Your task to perform on an android device: show emergency info Image 0: 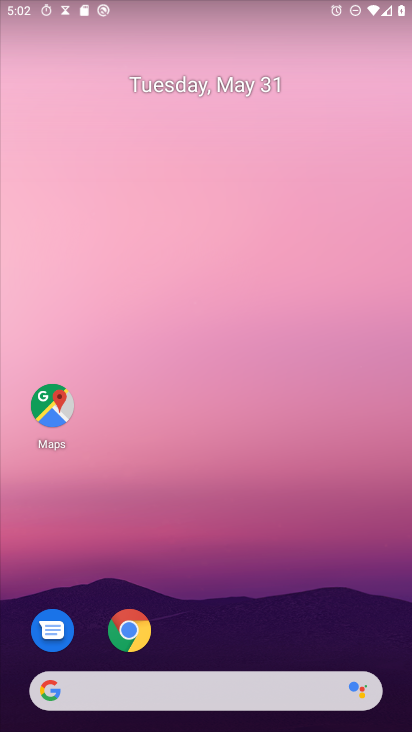
Step 0: drag from (133, 683) to (140, 27)
Your task to perform on an android device: show emergency info Image 1: 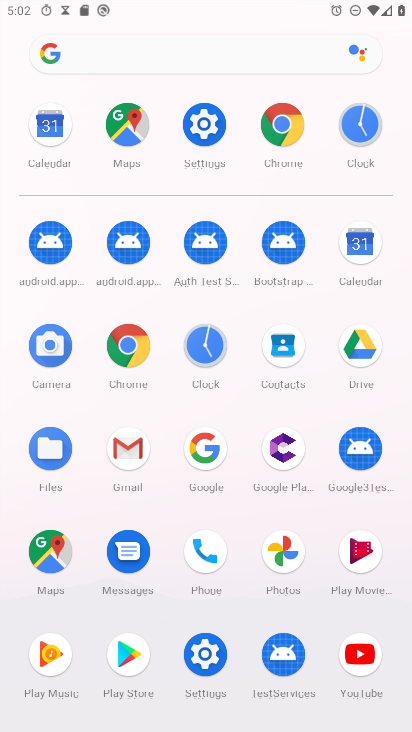
Step 1: click (202, 141)
Your task to perform on an android device: show emergency info Image 2: 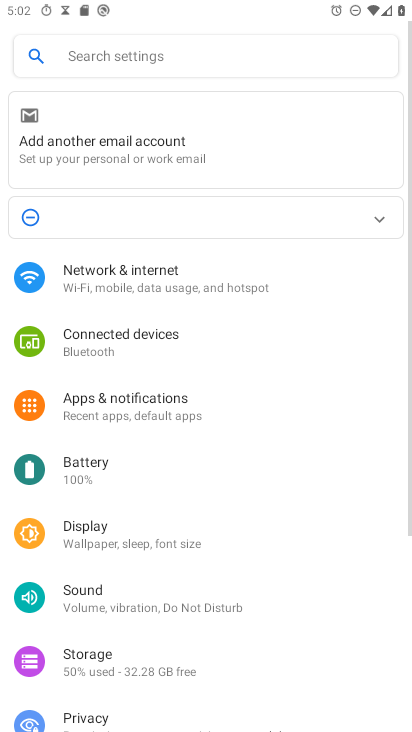
Step 2: drag from (273, 615) to (289, 51)
Your task to perform on an android device: show emergency info Image 3: 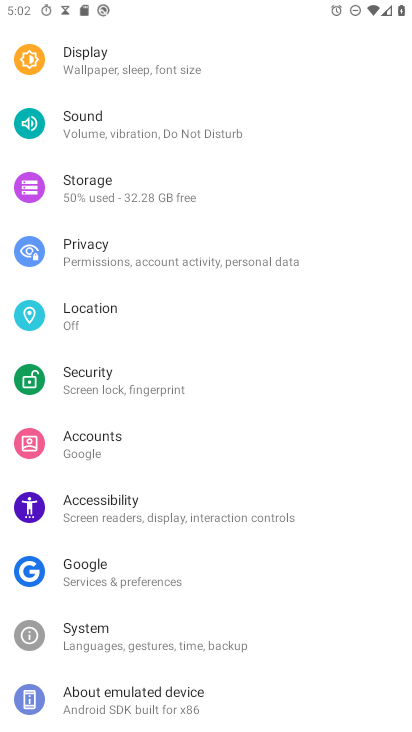
Step 3: drag from (294, 674) to (279, 145)
Your task to perform on an android device: show emergency info Image 4: 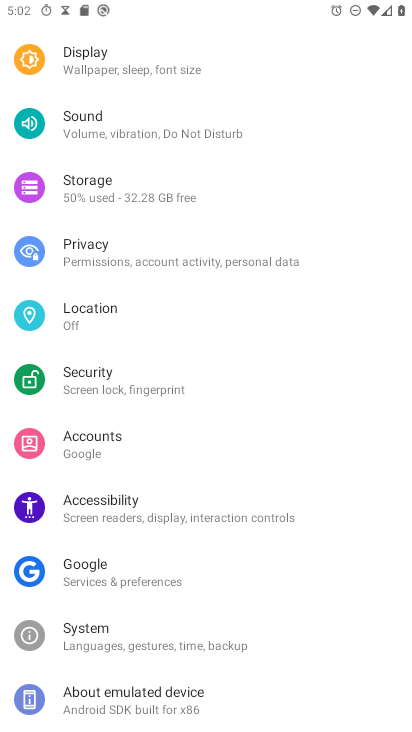
Step 4: click (248, 717)
Your task to perform on an android device: show emergency info Image 5: 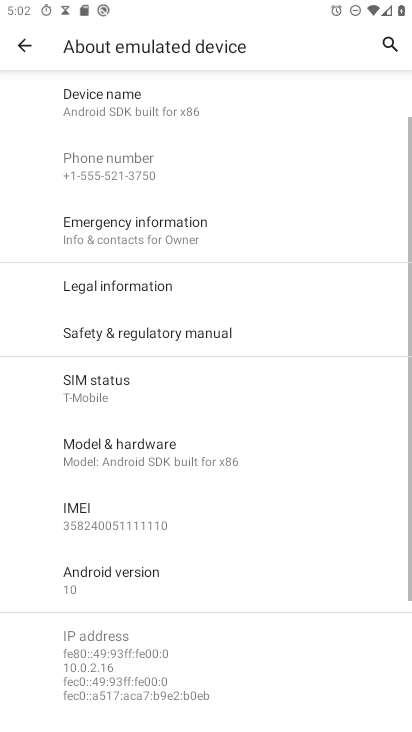
Step 5: drag from (254, 693) to (238, 417)
Your task to perform on an android device: show emergency info Image 6: 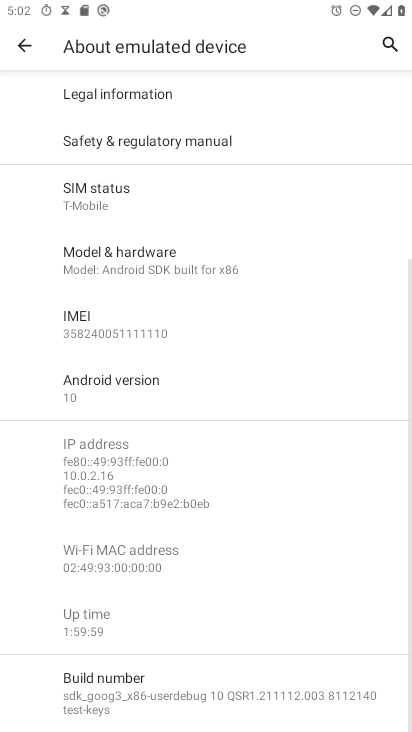
Step 6: drag from (199, 275) to (222, 713)
Your task to perform on an android device: show emergency info Image 7: 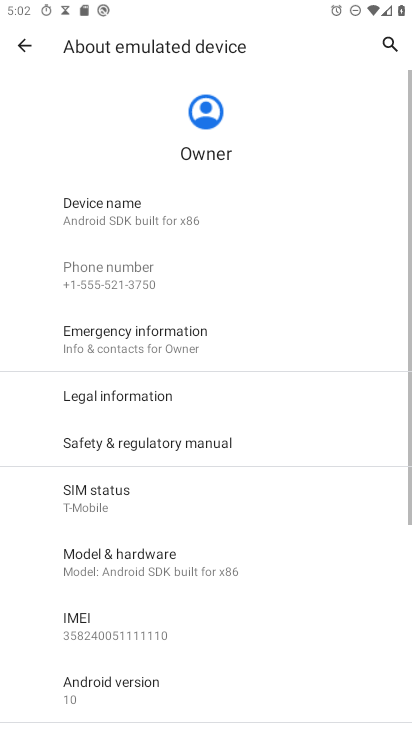
Step 7: click (191, 360)
Your task to perform on an android device: show emergency info Image 8: 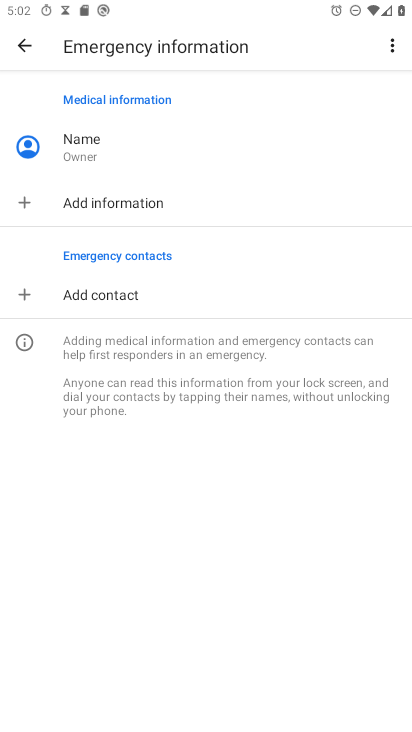
Step 8: task complete